Your task to perform on an android device: clear history in the chrome app Image 0: 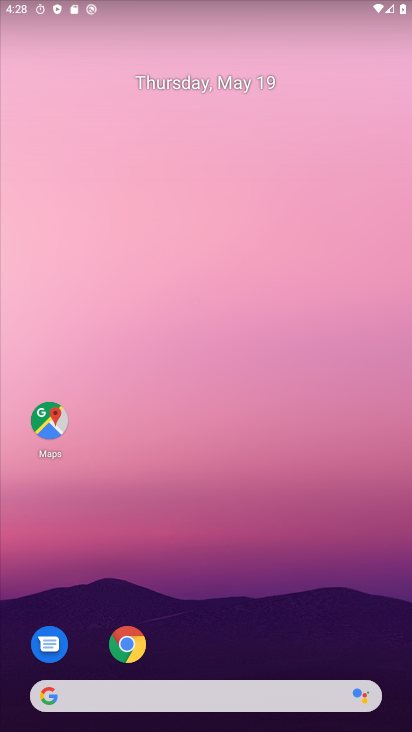
Step 0: drag from (222, 628) to (231, 152)
Your task to perform on an android device: clear history in the chrome app Image 1: 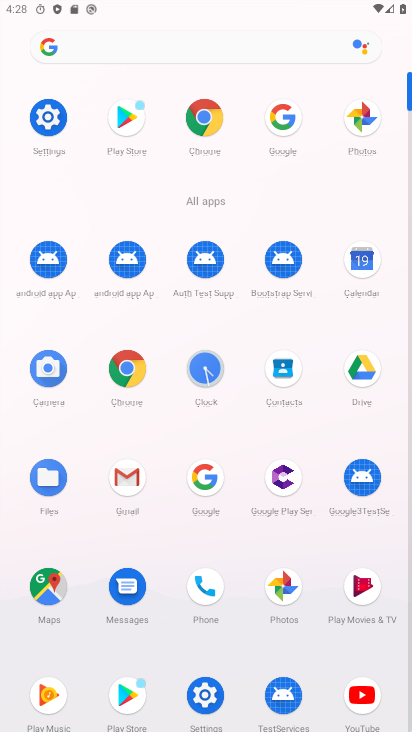
Step 1: click (187, 101)
Your task to perform on an android device: clear history in the chrome app Image 2: 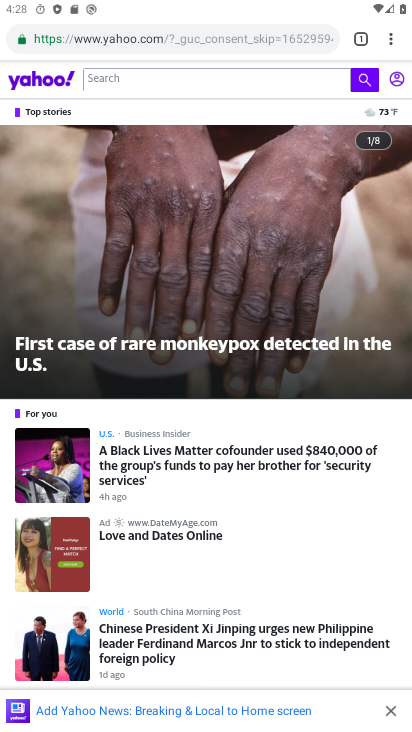
Step 2: click (400, 42)
Your task to perform on an android device: clear history in the chrome app Image 3: 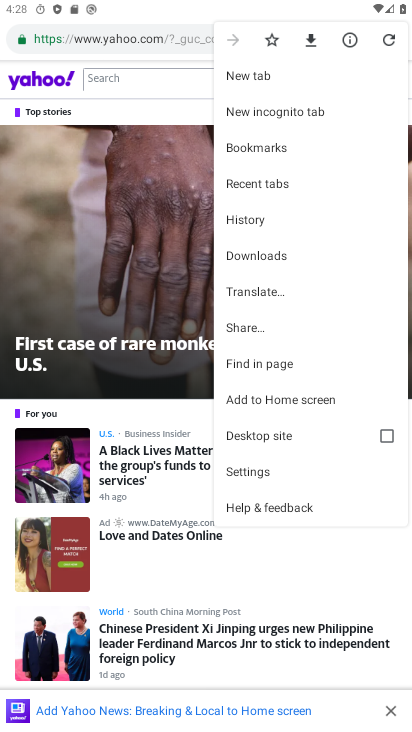
Step 3: click (244, 228)
Your task to perform on an android device: clear history in the chrome app Image 4: 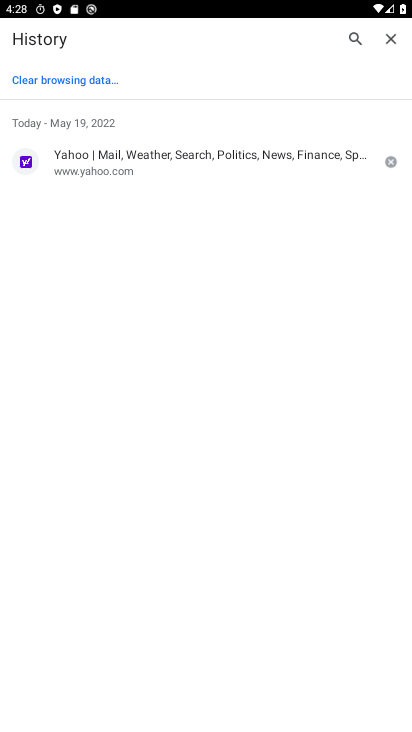
Step 4: click (68, 77)
Your task to perform on an android device: clear history in the chrome app Image 5: 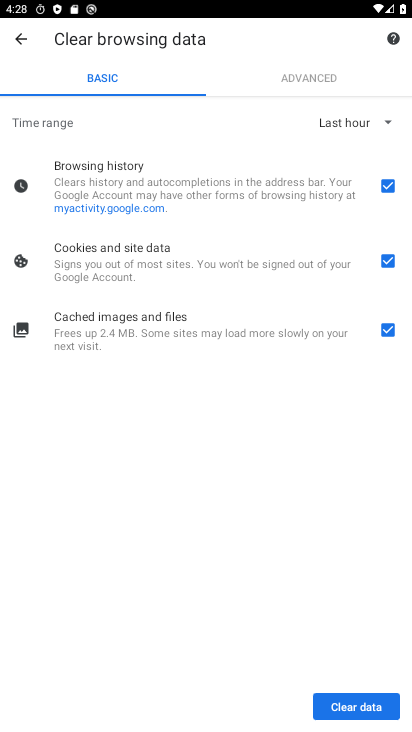
Step 5: click (368, 710)
Your task to perform on an android device: clear history in the chrome app Image 6: 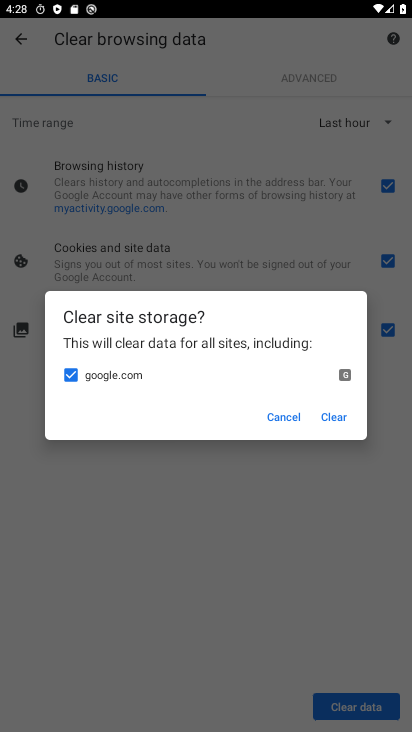
Step 6: click (332, 419)
Your task to perform on an android device: clear history in the chrome app Image 7: 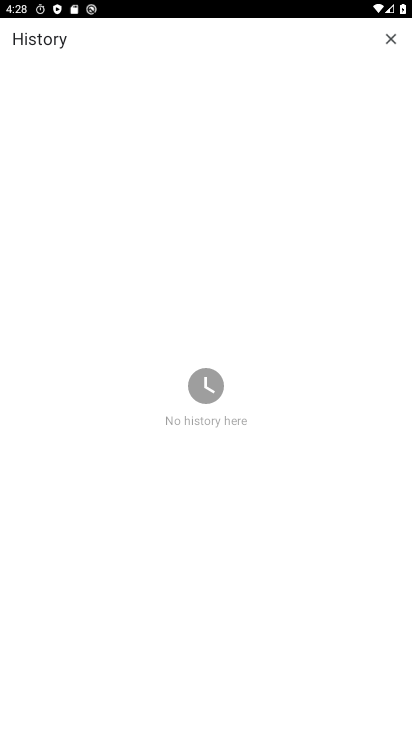
Step 7: task complete